Your task to perform on an android device: toggle notifications settings in the gmail app Image 0: 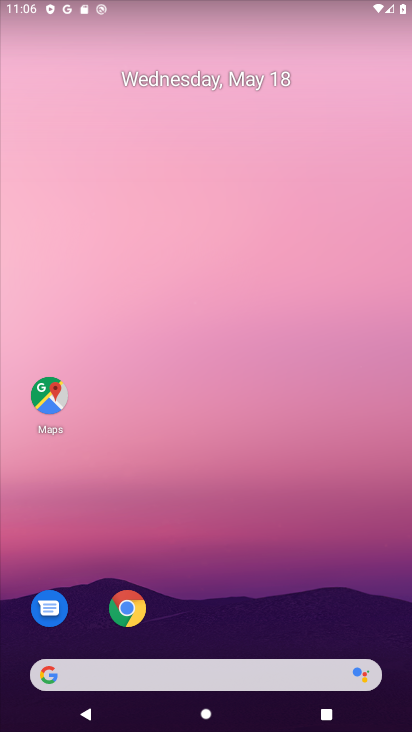
Step 0: drag from (191, 604) to (129, 118)
Your task to perform on an android device: toggle notifications settings in the gmail app Image 1: 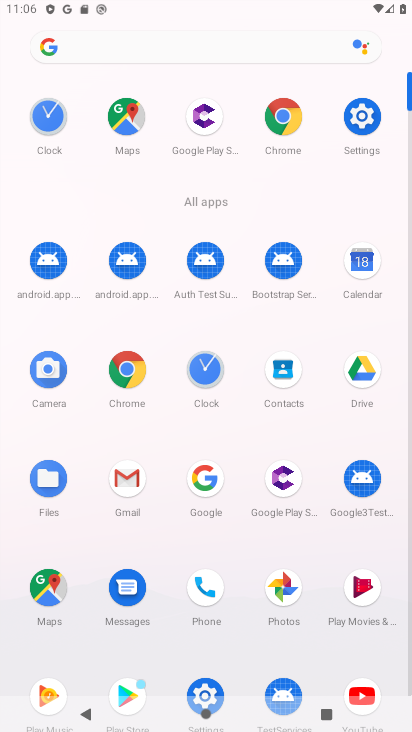
Step 1: click (125, 482)
Your task to perform on an android device: toggle notifications settings in the gmail app Image 2: 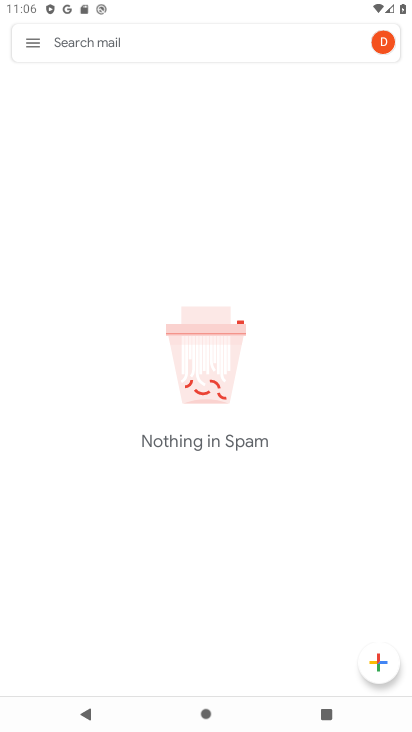
Step 2: click (30, 47)
Your task to perform on an android device: toggle notifications settings in the gmail app Image 3: 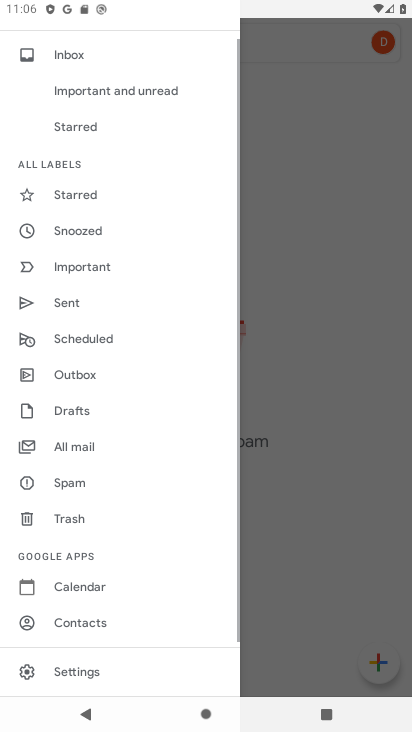
Step 3: click (55, 669)
Your task to perform on an android device: toggle notifications settings in the gmail app Image 4: 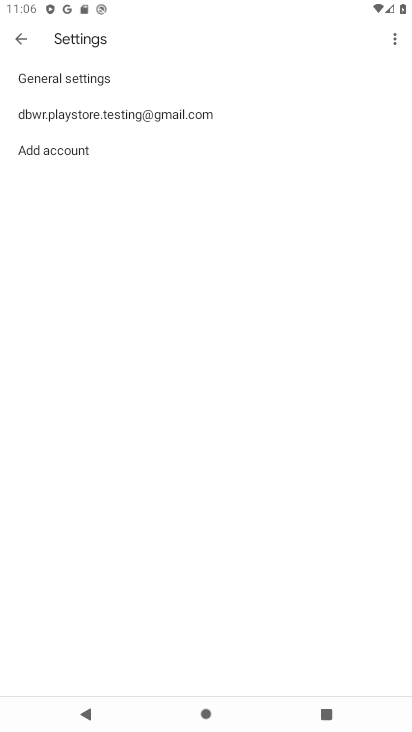
Step 4: click (139, 110)
Your task to perform on an android device: toggle notifications settings in the gmail app Image 5: 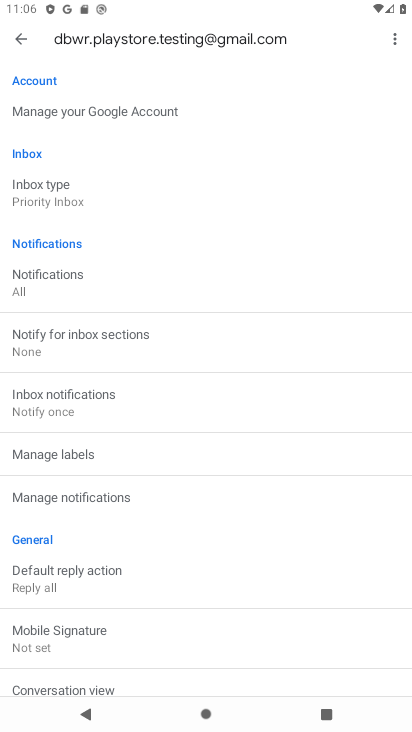
Step 5: click (48, 496)
Your task to perform on an android device: toggle notifications settings in the gmail app Image 6: 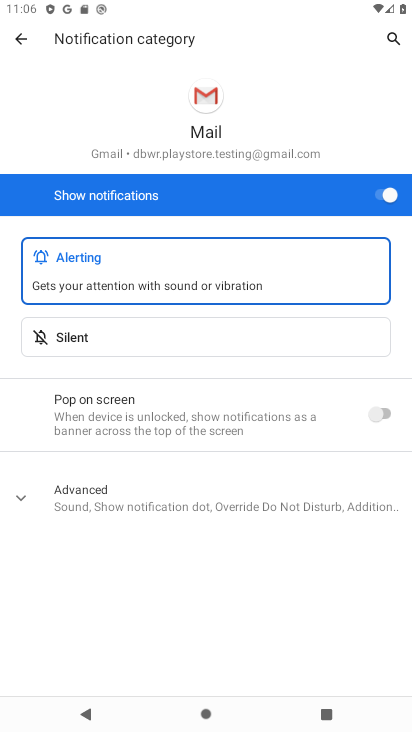
Step 6: click (381, 201)
Your task to perform on an android device: toggle notifications settings in the gmail app Image 7: 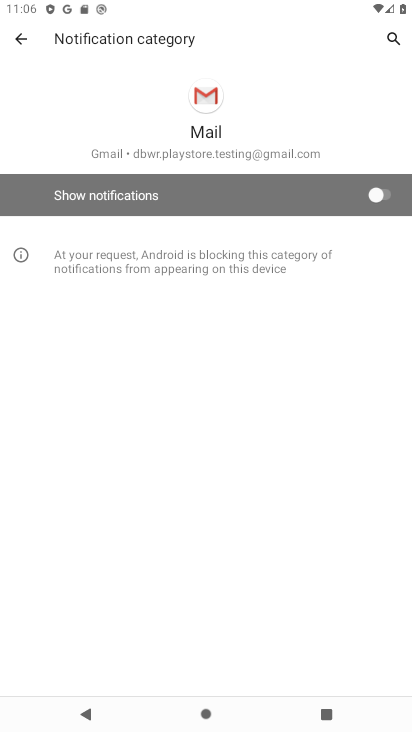
Step 7: task complete